Your task to perform on an android device: change the clock display to show seconds Image 0: 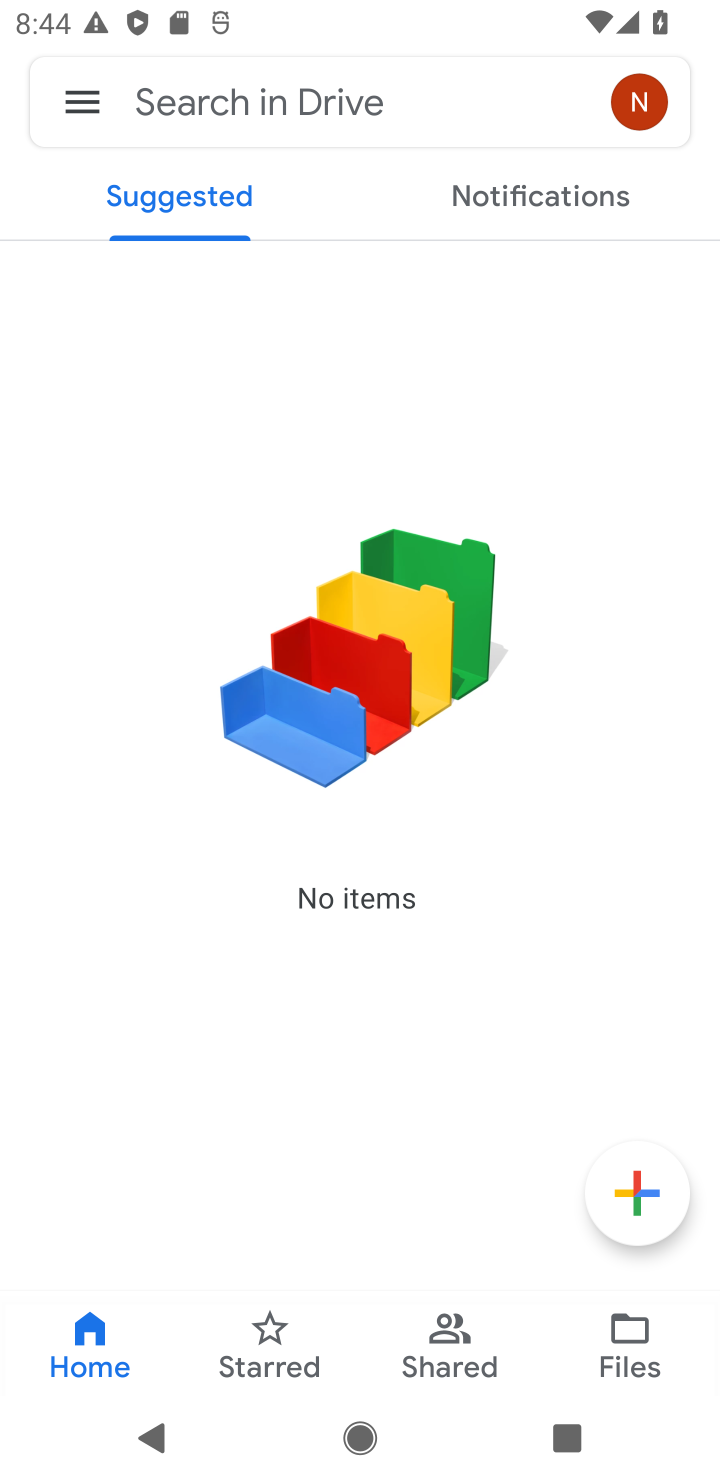
Step 0: press home button
Your task to perform on an android device: change the clock display to show seconds Image 1: 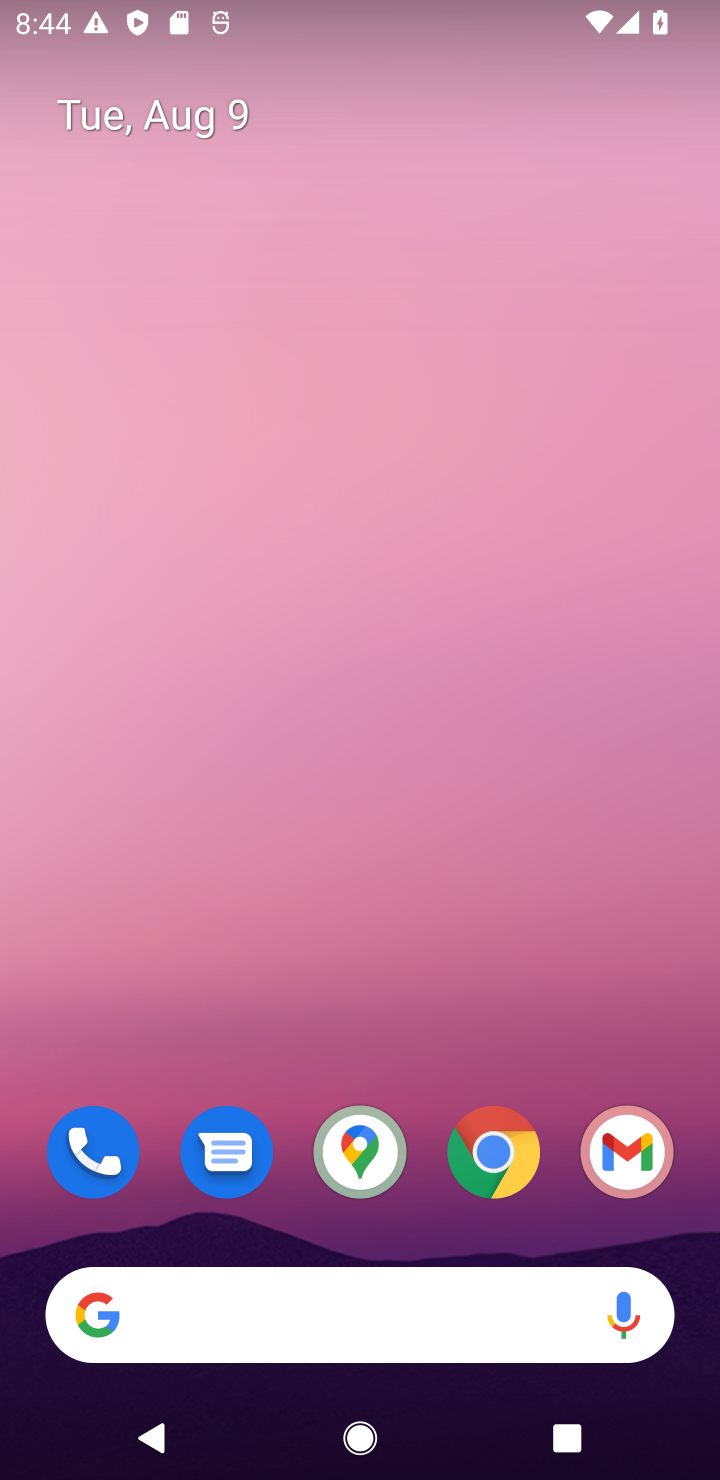
Step 1: drag from (318, 1059) to (427, 548)
Your task to perform on an android device: change the clock display to show seconds Image 2: 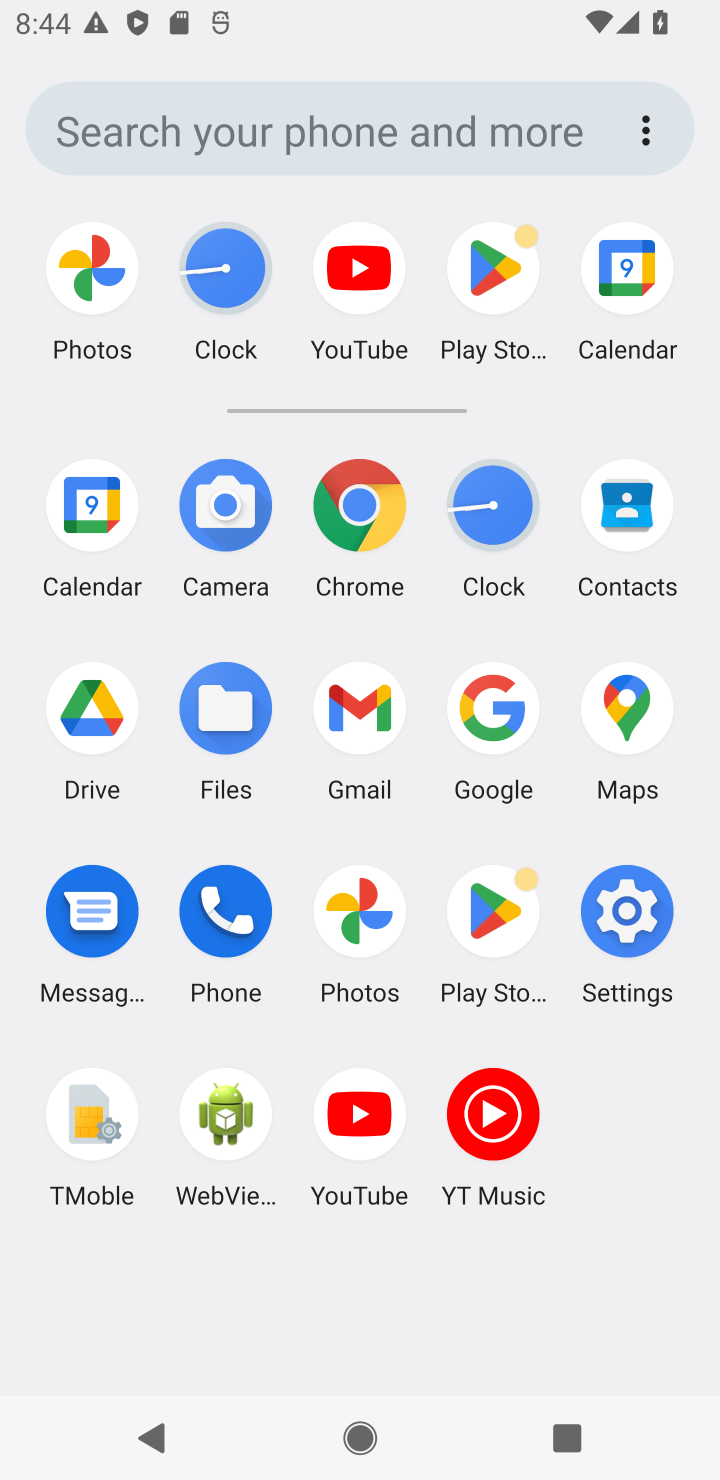
Step 2: click (484, 544)
Your task to perform on an android device: change the clock display to show seconds Image 3: 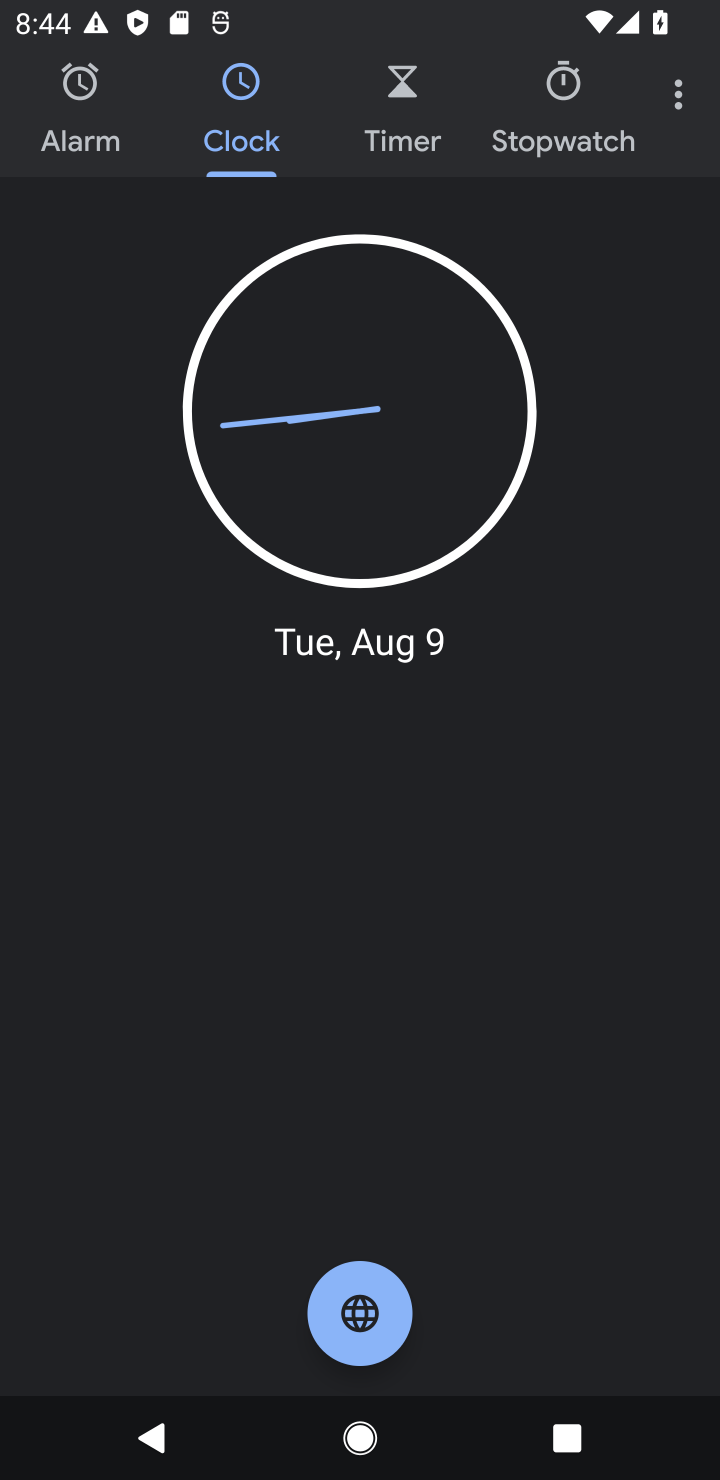
Step 3: click (691, 98)
Your task to perform on an android device: change the clock display to show seconds Image 4: 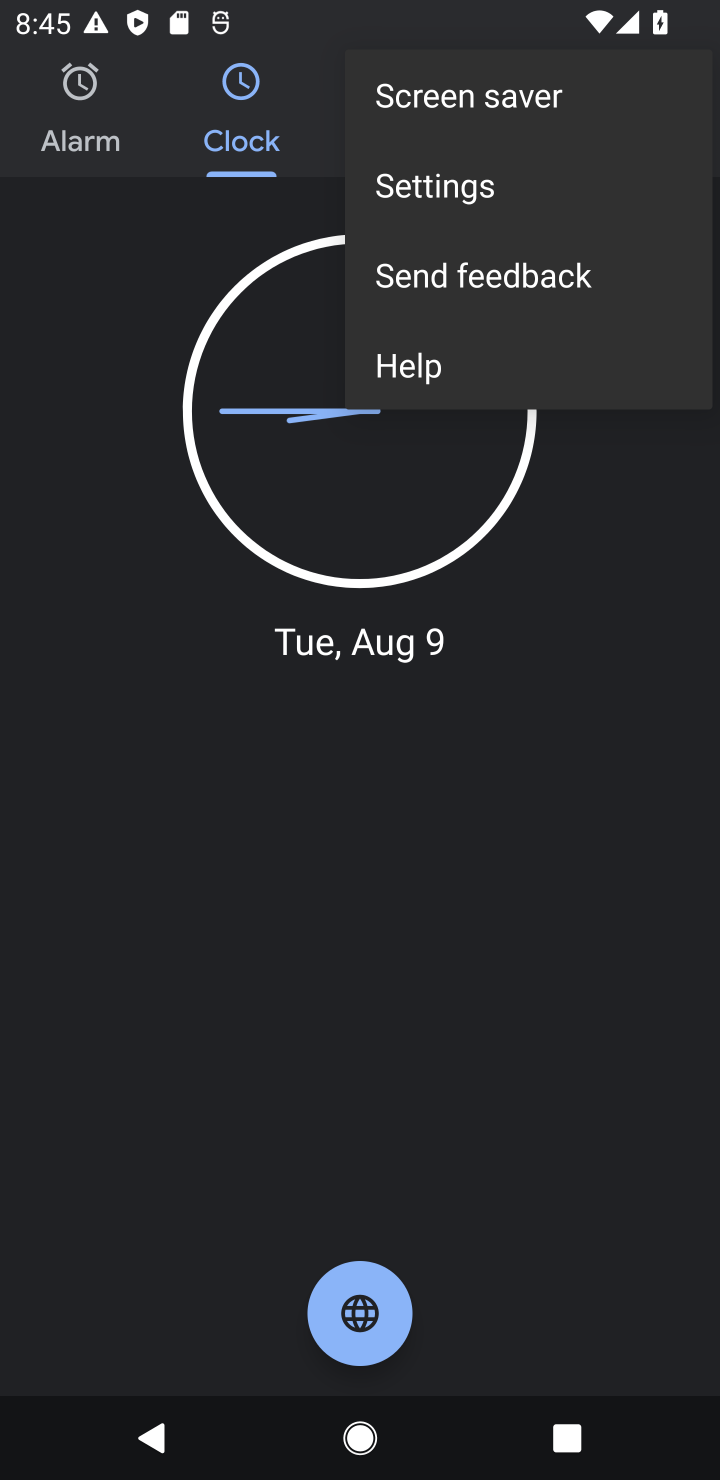
Step 4: click (439, 212)
Your task to perform on an android device: change the clock display to show seconds Image 5: 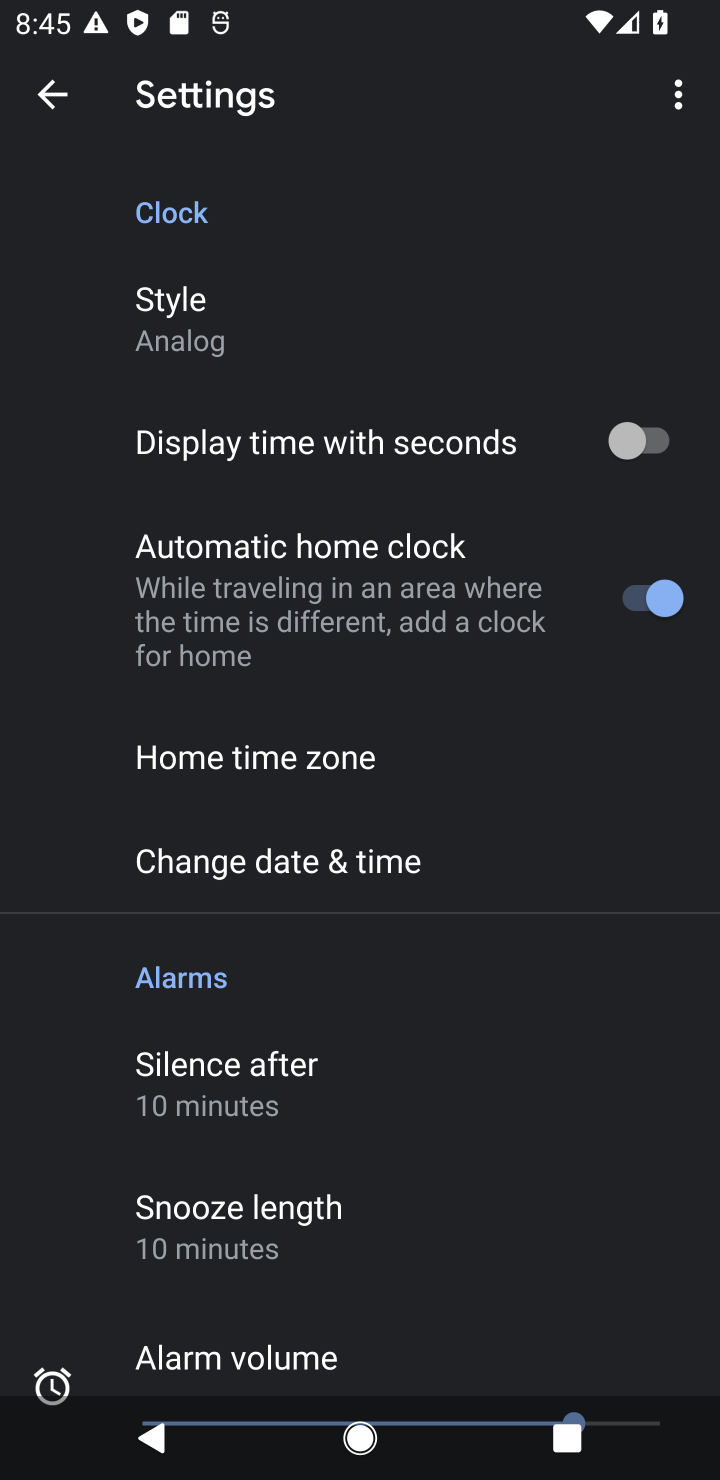
Step 5: click (660, 459)
Your task to perform on an android device: change the clock display to show seconds Image 6: 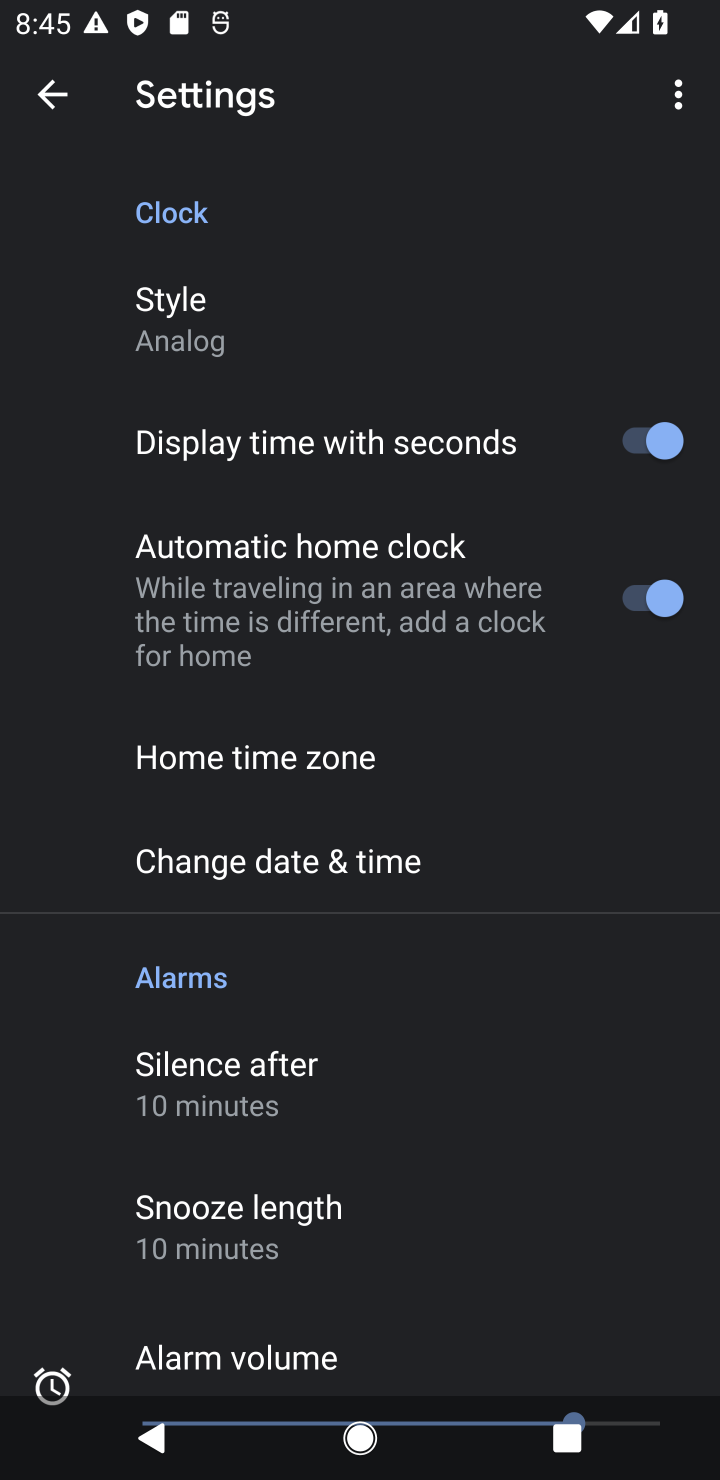
Step 6: task complete